Your task to perform on an android device: Open Maps and search for coffee Image 0: 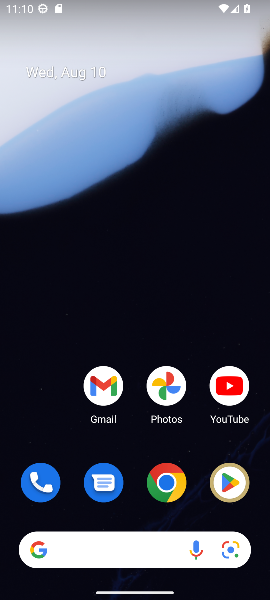
Step 0: drag from (45, 414) to (45, 162)
Your task to perform on an android device: Open Maps and search for coffee Image 1: 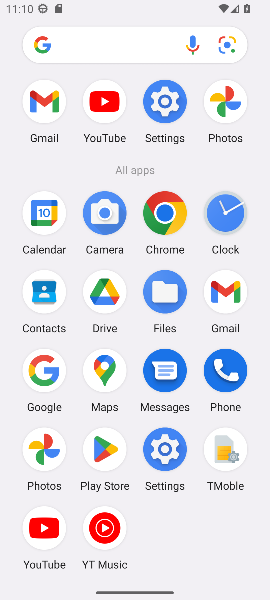
Step 1: click (104, 372)
Your task to perform on an android device: Open Maps and search for coffee Image 2: 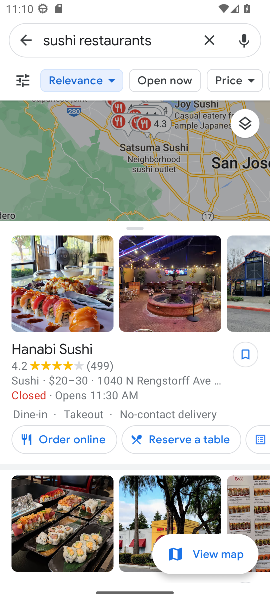
Step 2: click (210, 28)
Your task to perform on an android device: Open Maps and search for coffee Image 3: 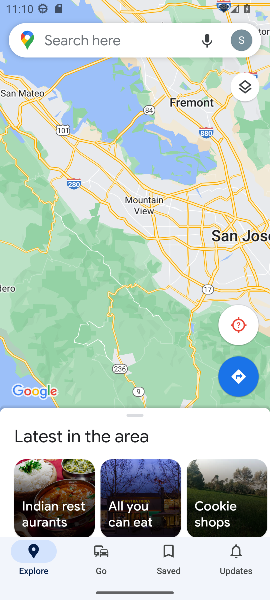
Step 3: click (83, 35)
Your task to perform on an android device: Open Maps and search for coffee Image 4: 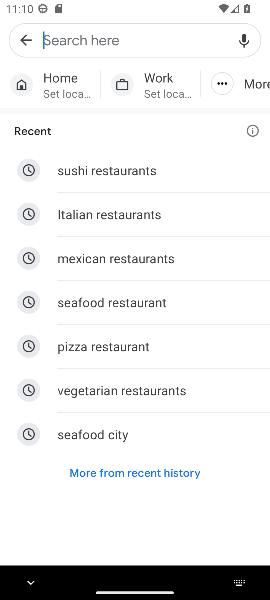
Step 4: type "coffee"
Your task to perform on an android device: Open Maps and search for coffee Image 5: 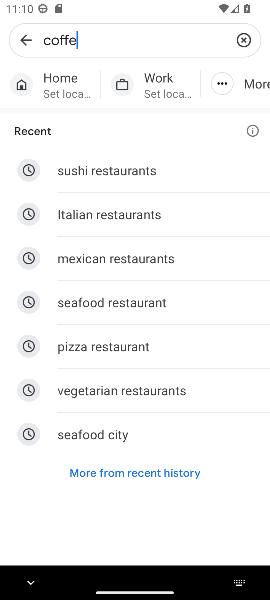
Step 5: type ""
Your task to perform on an android device: Open Maps and search for coffee Image 6: 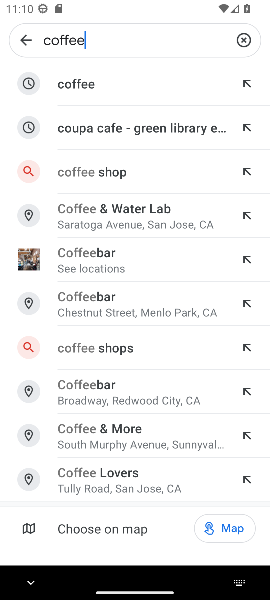
Step 6: press enter
Your task to perform on an android device: Open Maps and search for coffee Image 7: 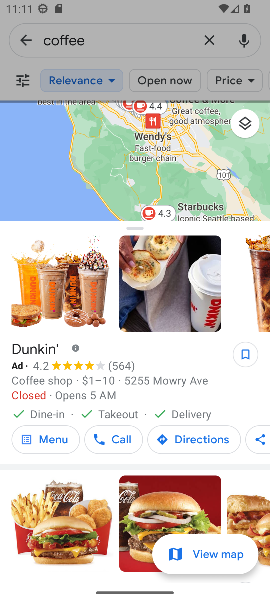
Step 7: task complete